Your task to perform on an android device: add a contact Image 0: 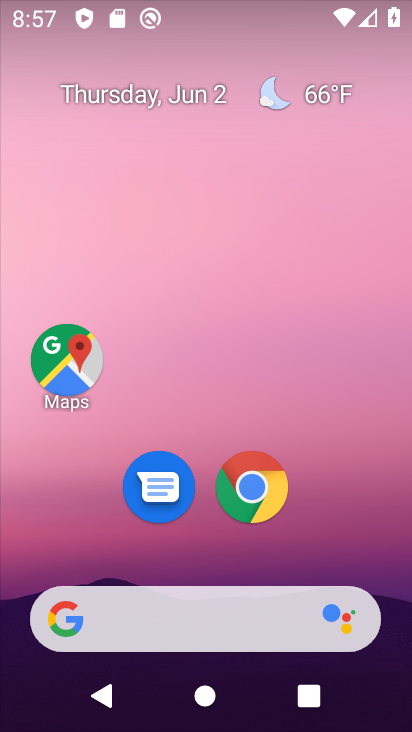
Step 0: drag from (229, 713) to (174, 160)
Your task to perform on an android device: add a contact Image 1: 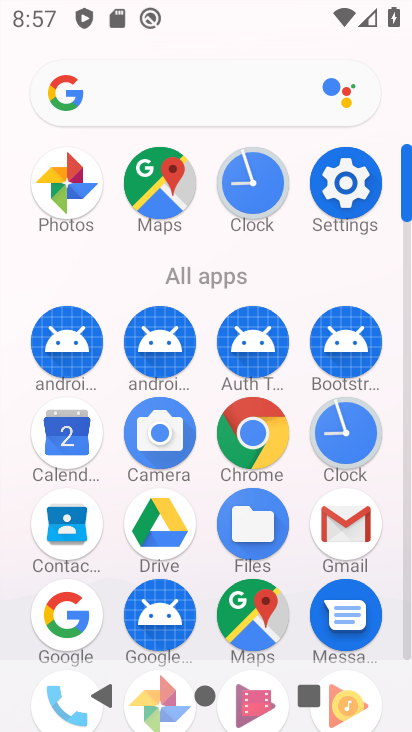
Step 1: click (62, 527)
Your task to perform on an android device: add a contact Image 2: 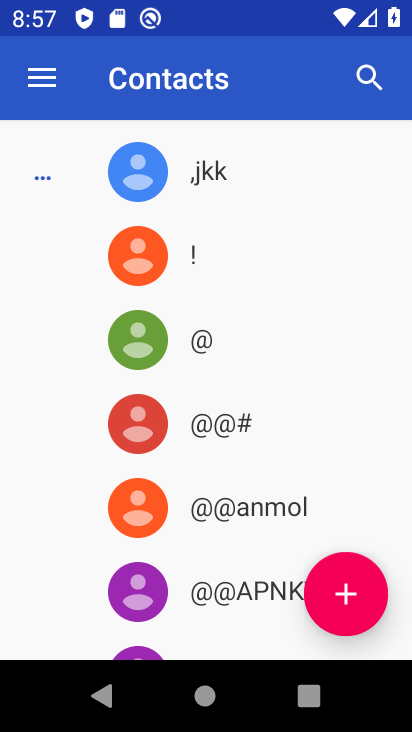
Step 2: click (347, 594)
Your task to perform on an android device: add a contact Image 3: 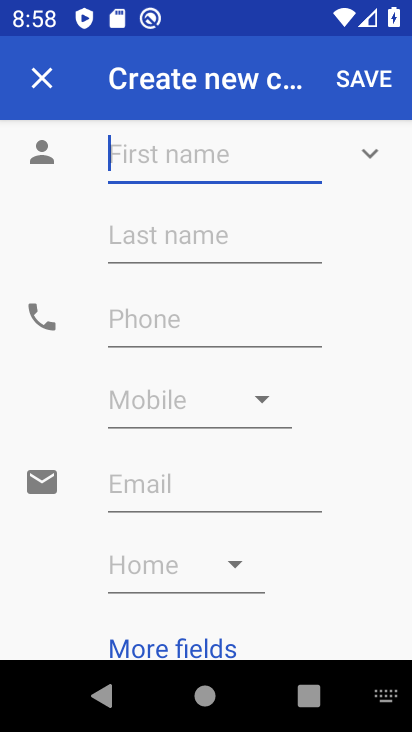
Step 3: type ""
Your task to perform on an android device: add a contact Image 4: 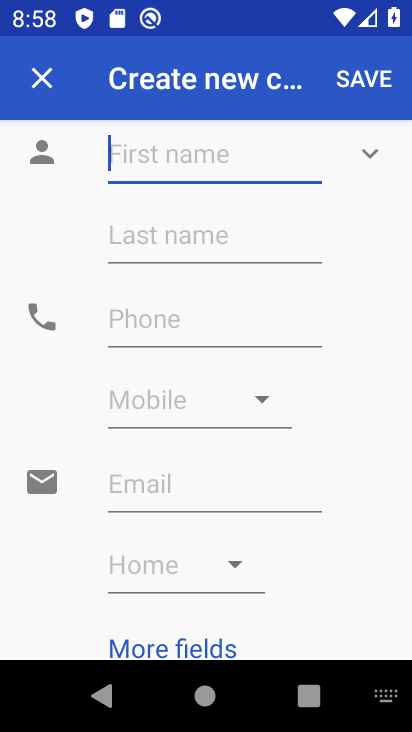
Step 4: click (200, 165)
Your task to perform on an android device: add a contact Image 5: 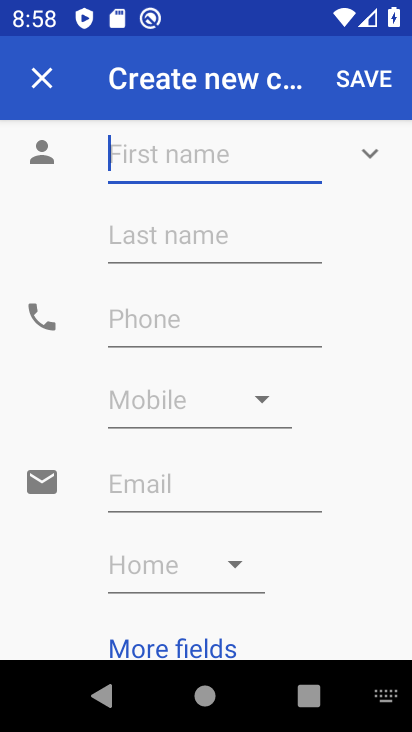
Step 5: type "sooraj"
Your task to perform on an android device: add a contact Image 6: 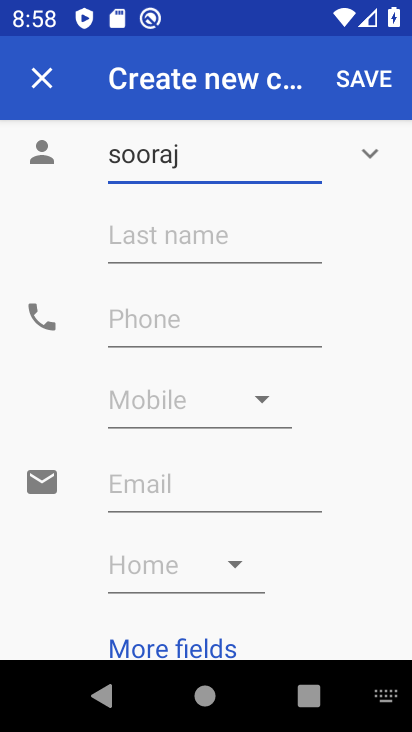
Step 6: click (159, 318)
Your task to perform on an android device: add a contact Image 7: 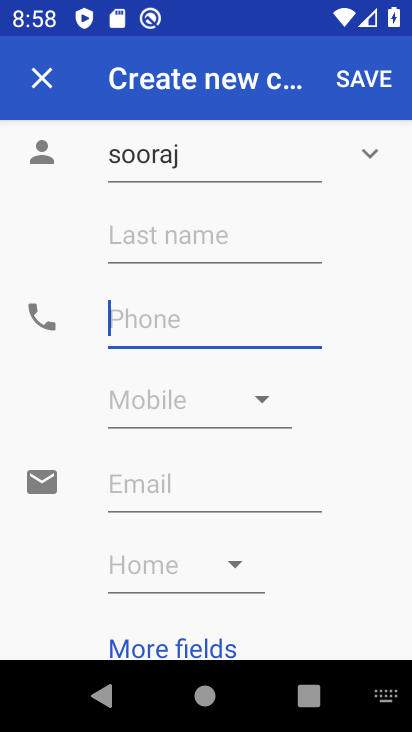
Step 7: type "87878"
Your task to perform on an android device: add a contact Image 8: 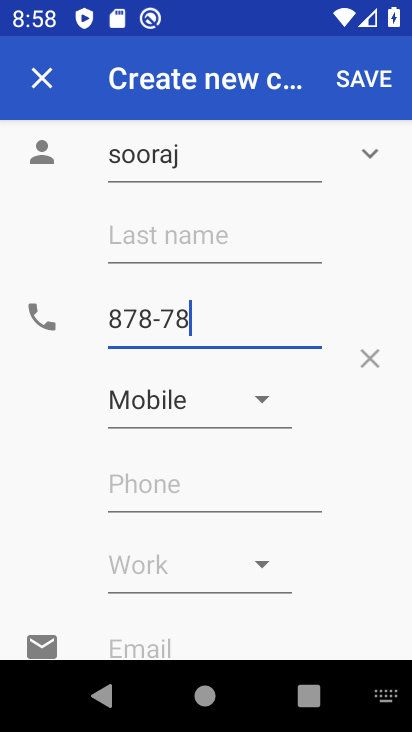
Step 8: click (363, 78)
Your task to perform on an android device: add a contact Image 9: 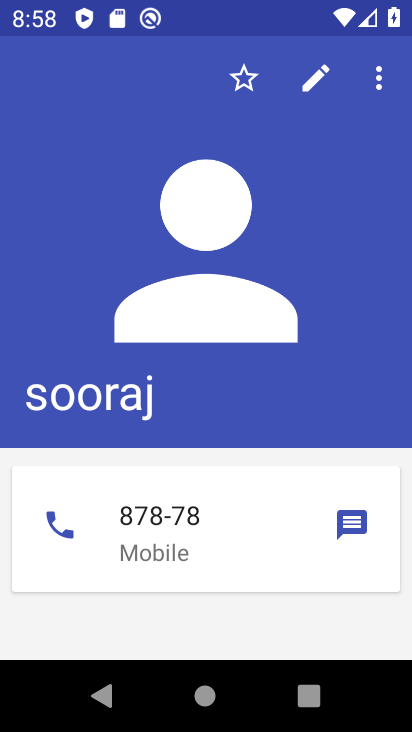
Step 9: task complete